Your task to perform on an android device: toggle translation in the chrome app Image 0: 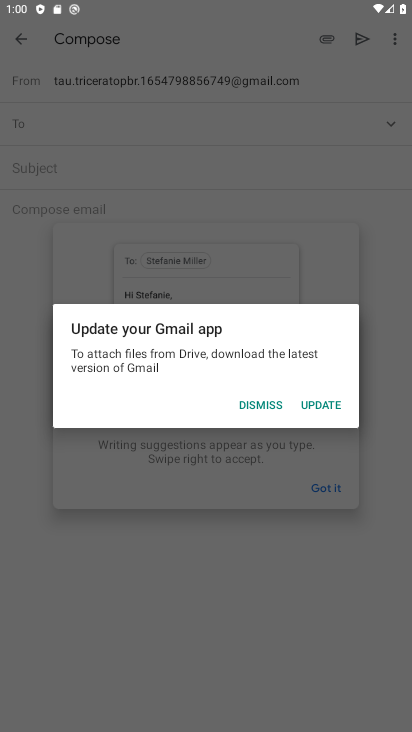
Step 0: press home button
Your task to perform on an android device: toggle translation in the chrome app Image 1: 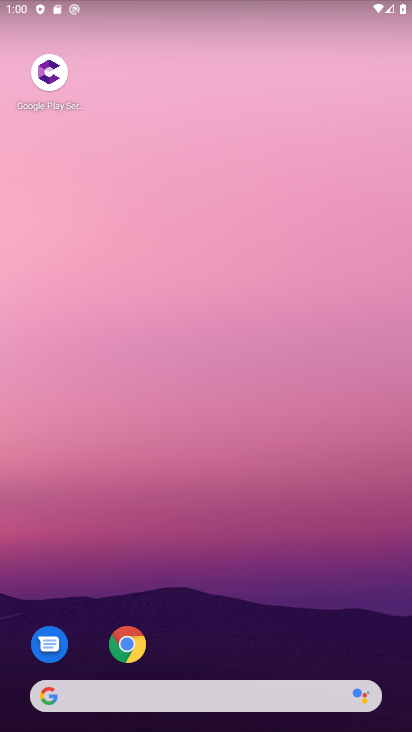
Step 1: press home button
Your task to perform on an android device: toggle translation in the chrome app Image 2: 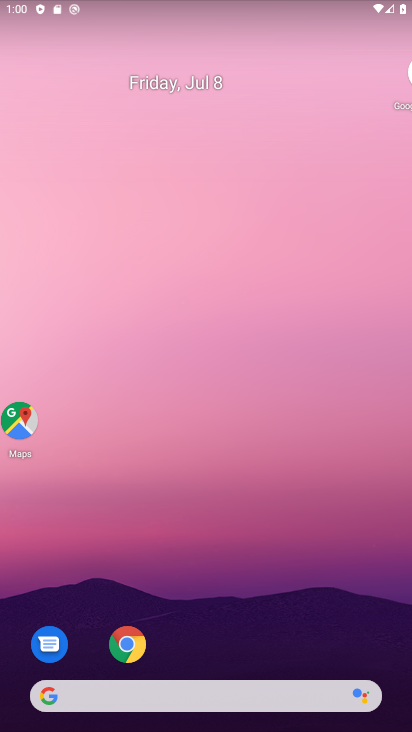
Step 2: drag from (261, 550) to (277, 7)
Your task to perform on an android device: toggle translation in the chrome app Image 3: 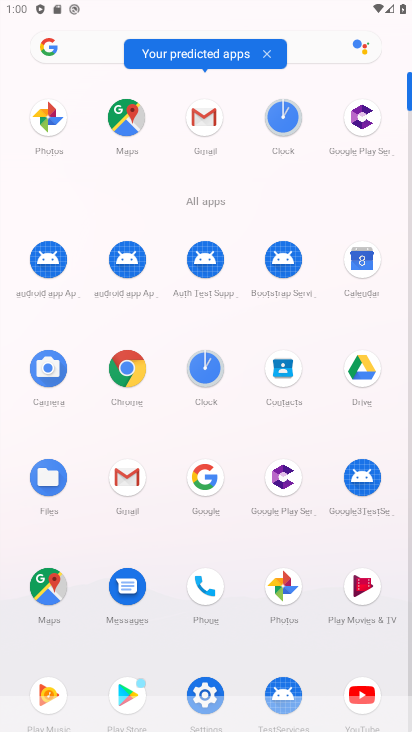
Step 3: click (120, 365)
Your task to perform on an android device: toggle translation in the chrome app Image 4: 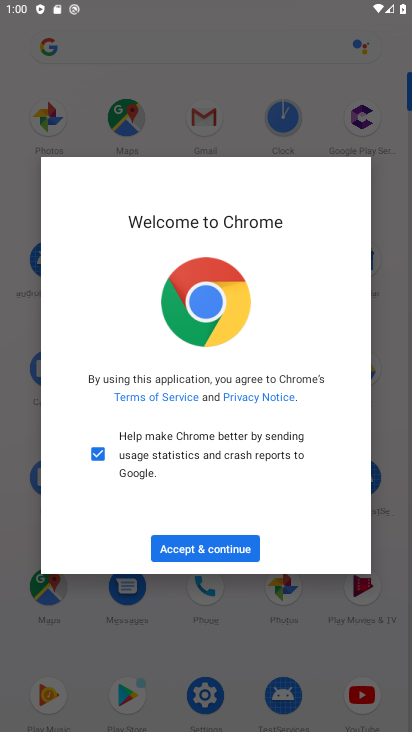
Step 4: click (226, 543)
Your task to perform on an android device: toggle translation in the chrome app Image 5: 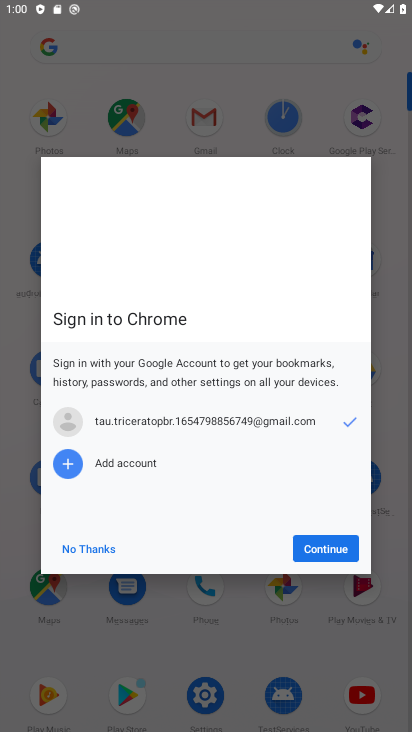
Step 5: click (314, 553)
Your task to perform on an android device: toggle translation in the chrome app Image 6: 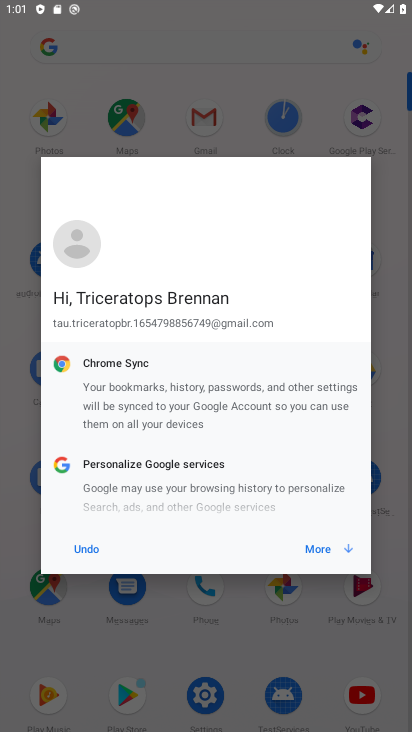
Step 6: click (314, 553)
Your task to perform on an android device: toggle translation in the chrome app Image 7: 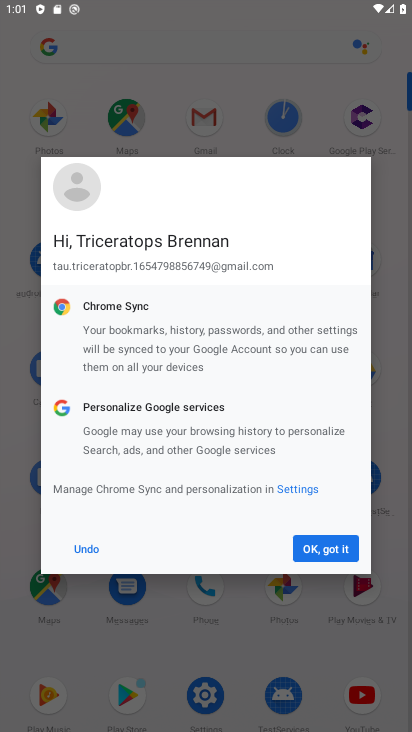
Step 7: click (321, 547)
Your task to perform on an android device: toggle translation in the chrome app Image 8: 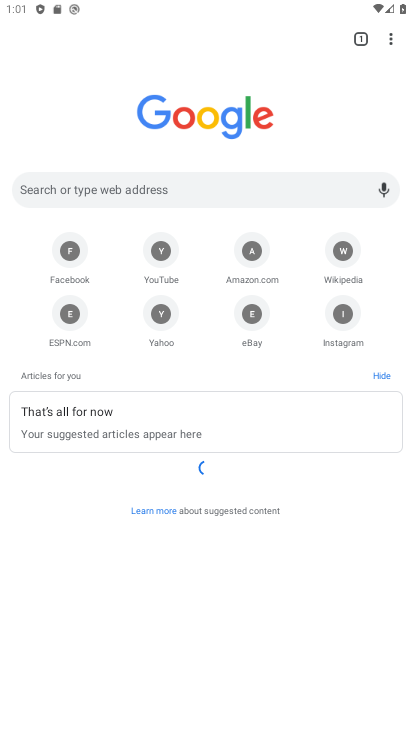
Step 8: drag from (387, 35) to (231, 326)
Your task to perform on an android device: toggle translation in the chrome app Image 9: 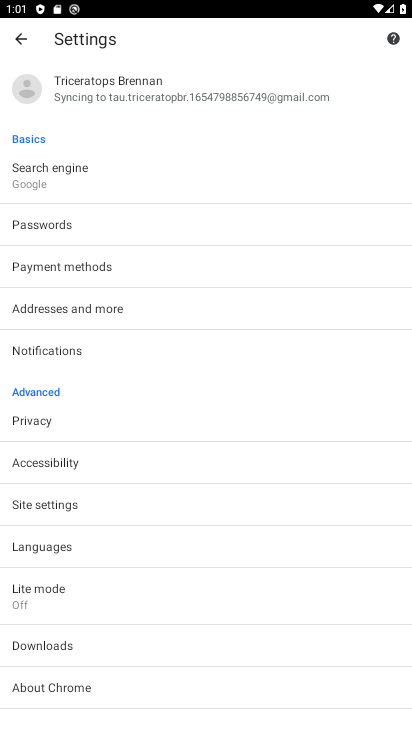
Step 9: click (43, 541)
Your task to perform on an android device: toggle translation in the chrome app Image 10: 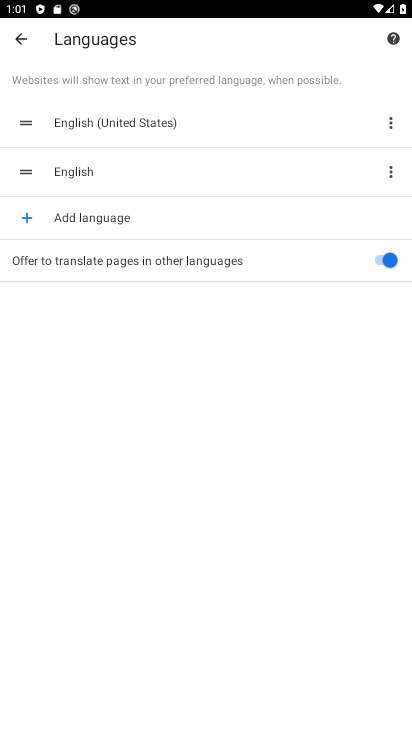
Step 10: click (381, 259)
Your task to perform on an android device: toggle translation in the chrome app Image 11: 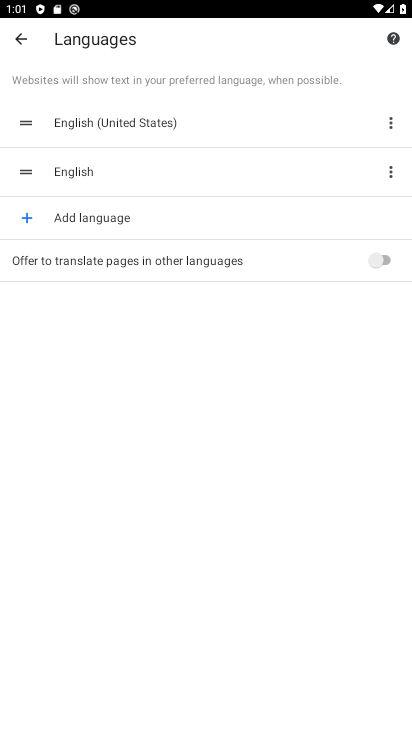
Step 11: task complete